Your task to perform on an android device: Find coffee shops on Maps Image 0: 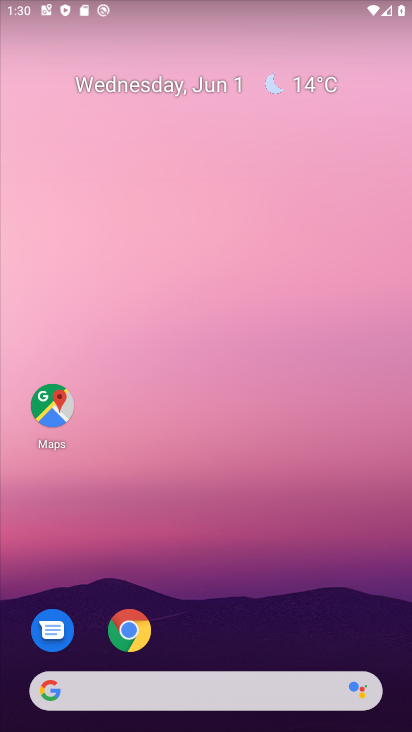
Step 0: press home button
Your task to perform on an android device: Find coffee shops on Maps Image 1: 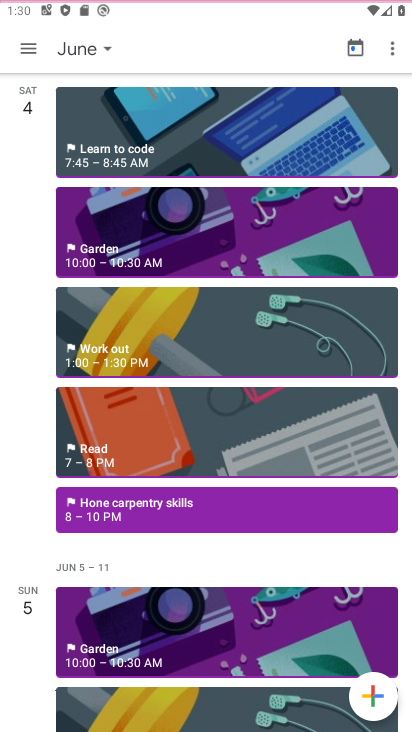
Step 1: drag from (230, 569) to (253, 99)
Your task to perform on an android device: Find coffee shops on Maps Image 2: 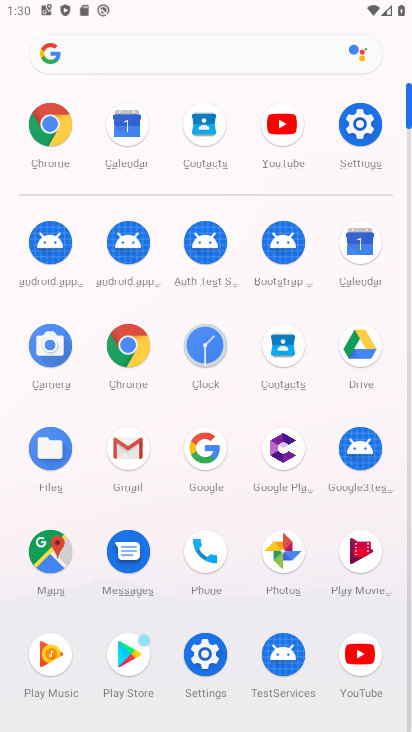
Step 2: drag from (247, 9) to (268, 367)
Your task to perform on an android device: Find coffee shops on Maps Image 3: 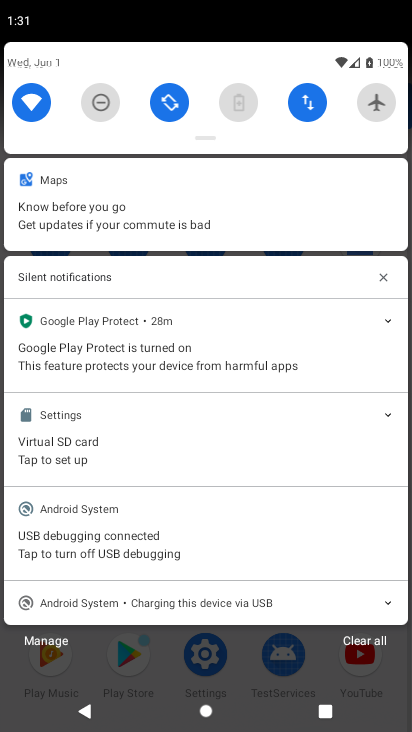
Step 3: drag from (256, 658) to (277, 302)
Your task to perform on an android device: Find coffee shops on Maps Image 4: 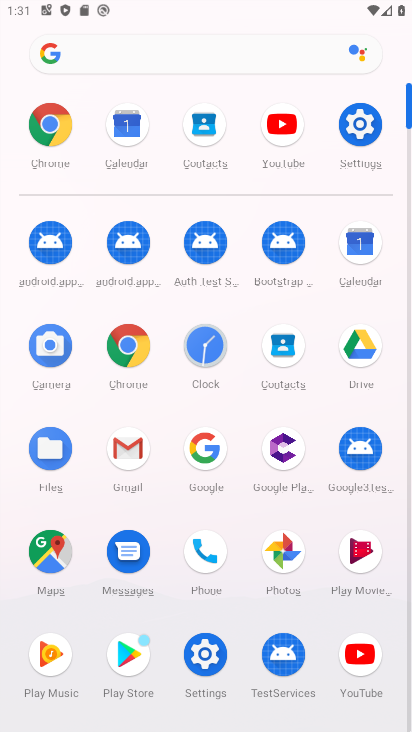
Step 4: click (47, 550)
Your task to perform on an android device: Find coffee shops on Maps Image 5: 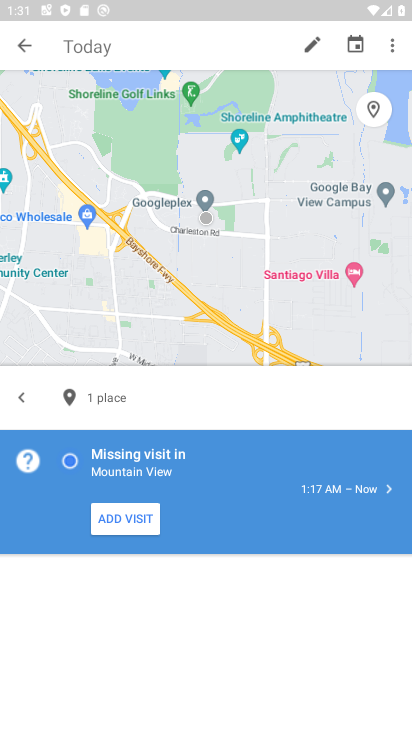
Step 5: click (26, 37)
Your task to perform on an android device: Find coffee shops on Maps Image 6: 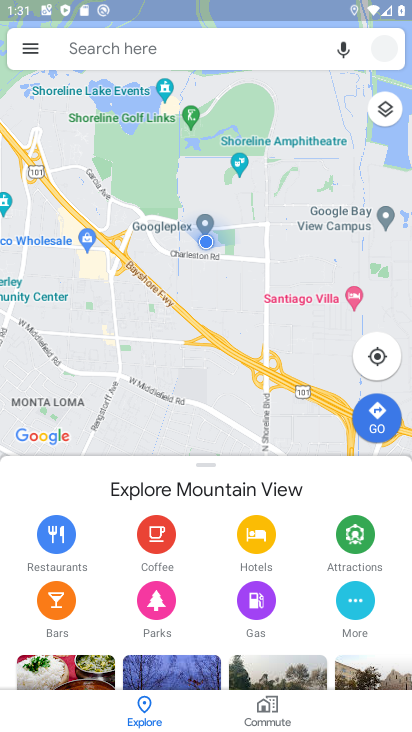
Step 6: click (137, 41)
Your task to perform on an android device: Find coffee shops on Maps Image 7: 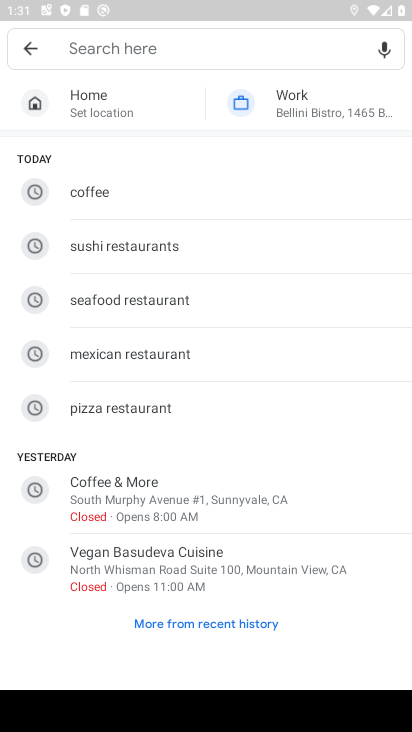
Step 7: click (114, 187)
Your task to perform on an android device: Find coffee shops on Maps Image 8: 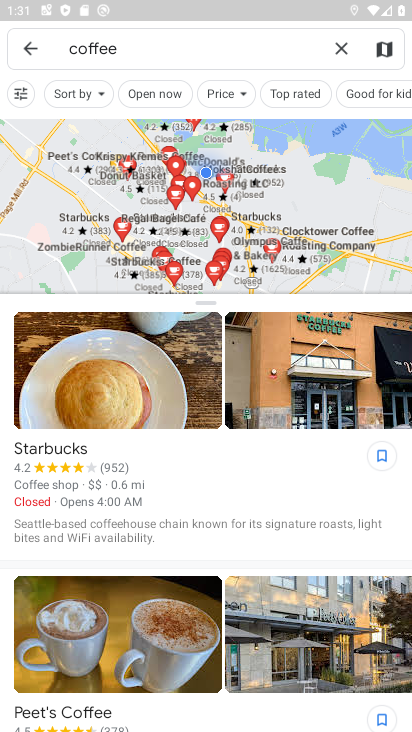
Step 8: task complete